Your task to perform on an android device: open app "TextNow: Call + Text Unlimited" (install if not already installed), go to login, and select forgot password Image 0: 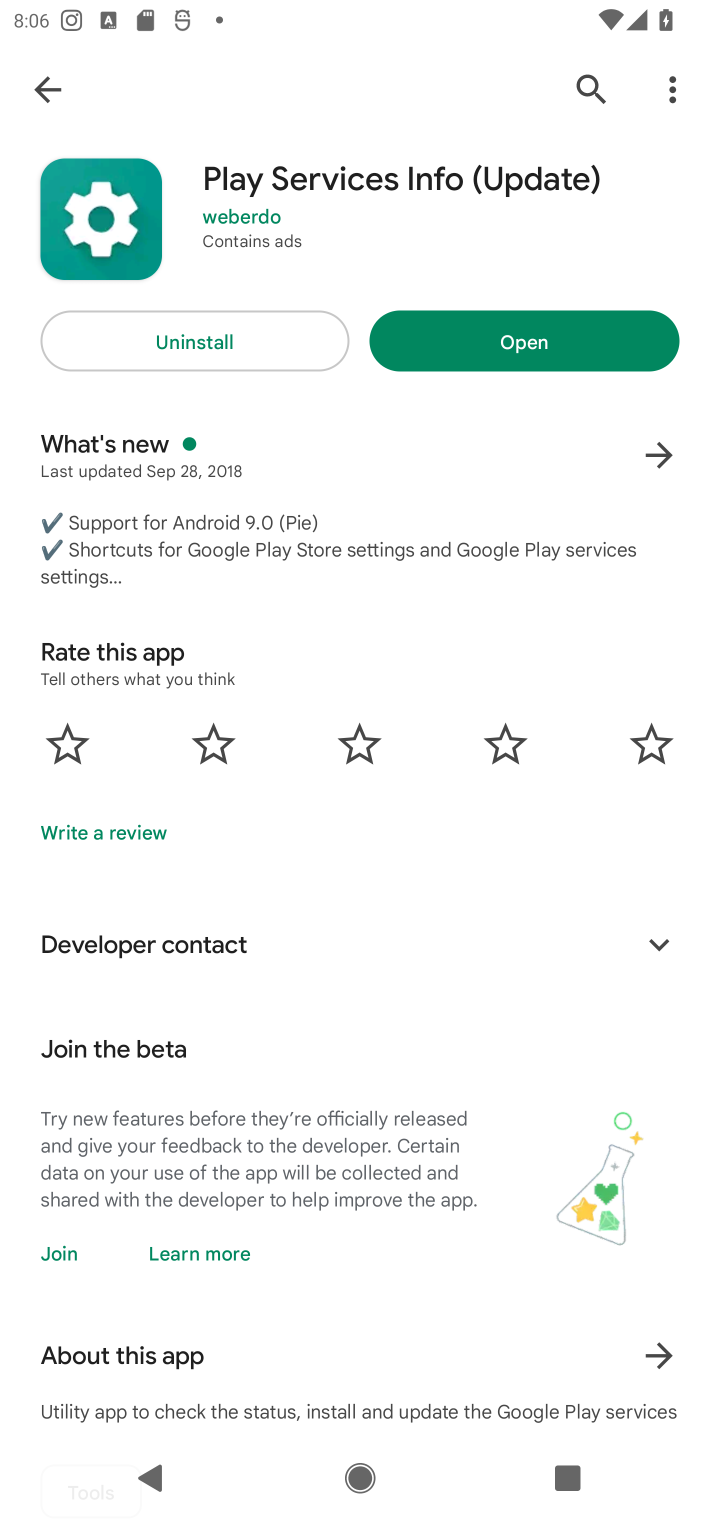
Step 0: click (584, 67)
Your task to perform on an android device: open app "TextNow: Call + Text Unlimited" (install if not already installed), go to login, and select forgot password Image 1: 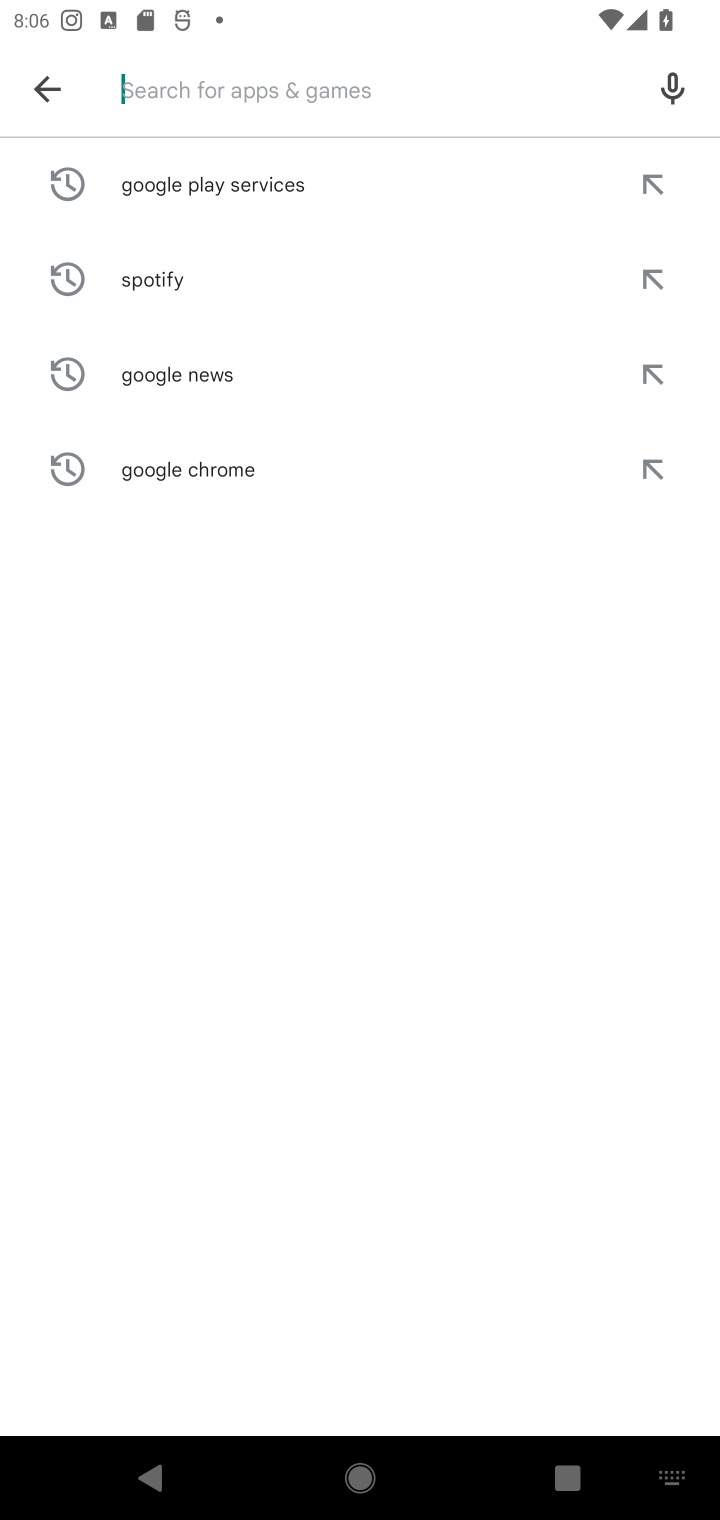
Step 1: type "TextNow: Call + Text Unlimited"
Your task to perform on an android device: open app "TextNow: Call + Text Unlimited" (install if not already installed), go to login, and select forgot password Image 2: 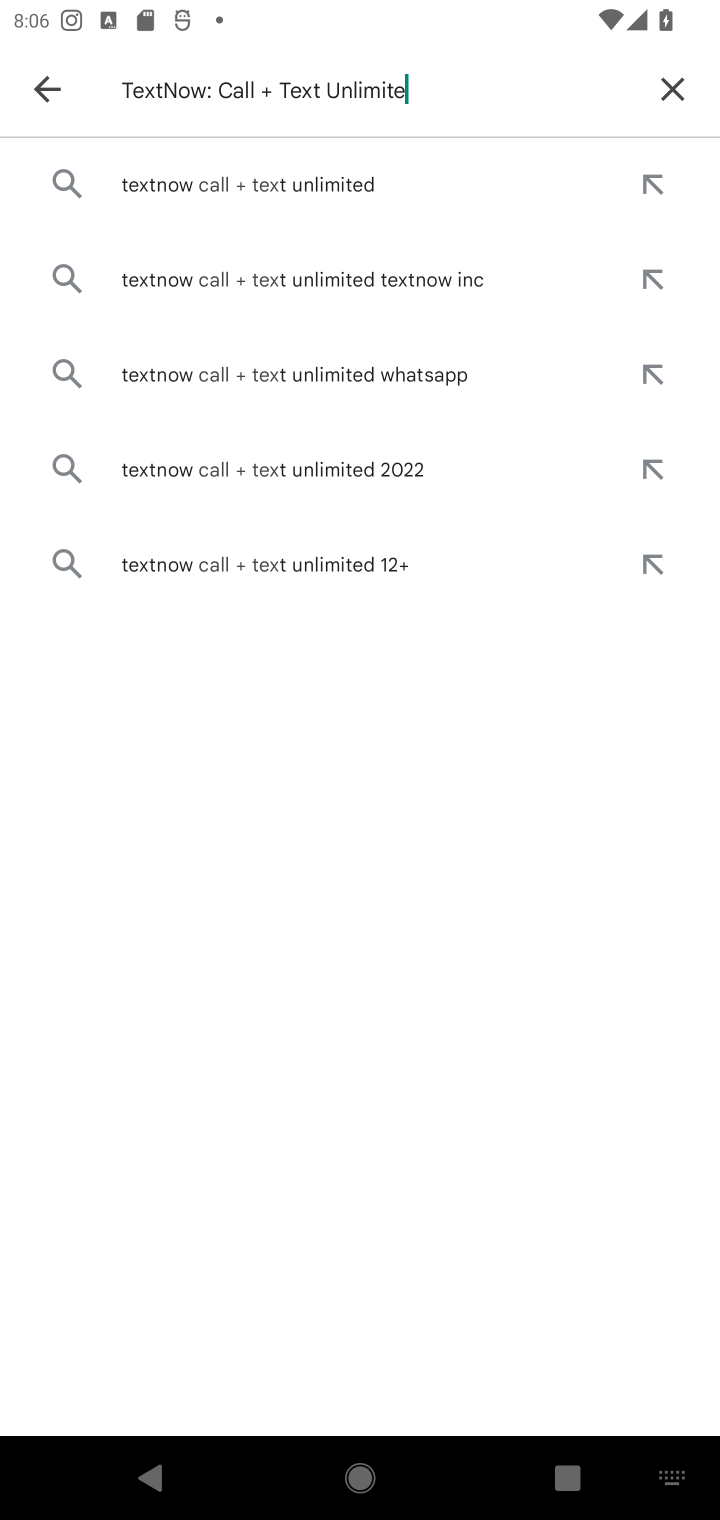
Step 2: type ""
Your task to perform on an android device: open app "TextNow: Call + Text Unlimited" (install if not already installed), go to login, and select forgot password Image 3: 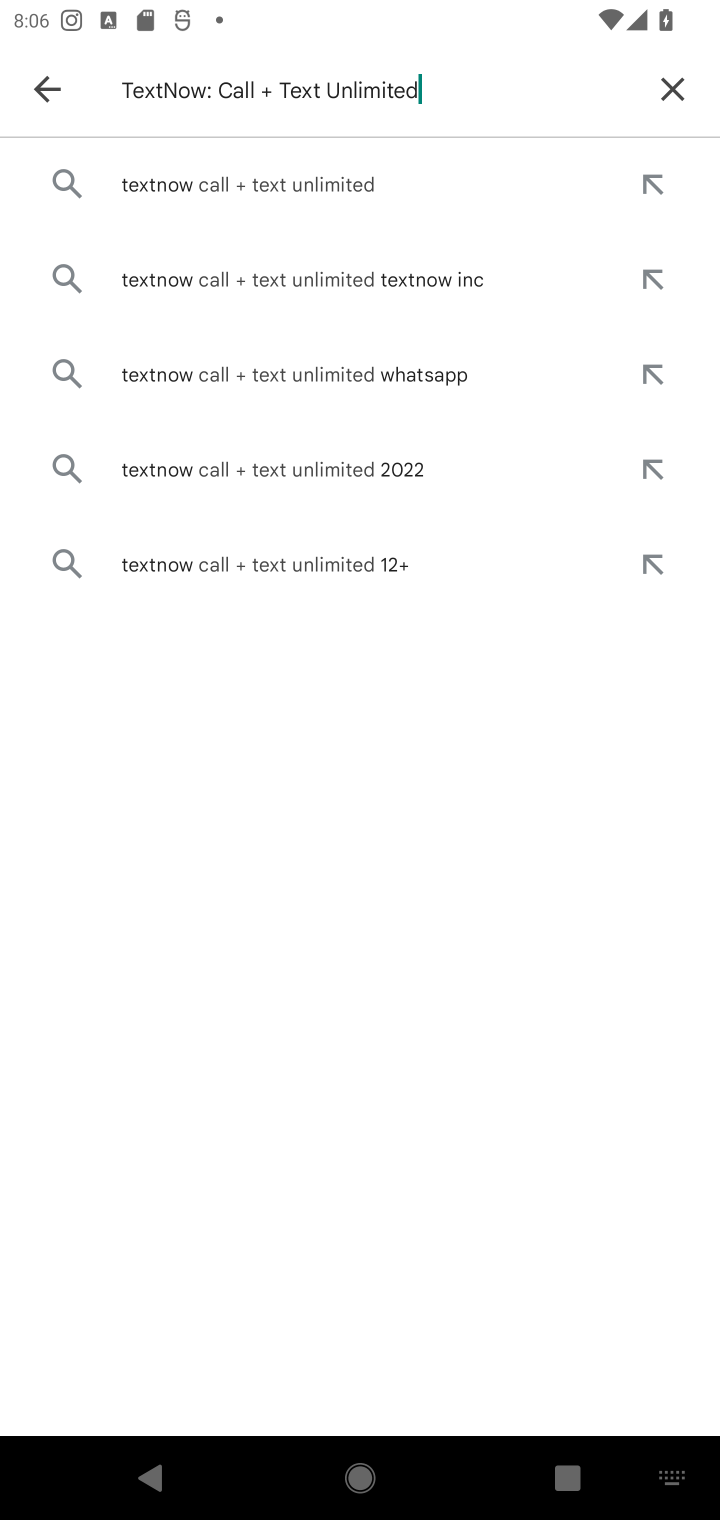
Step 3: click (277, 180)
Your task to perform on an android device: open app "TextNow: Call + Text Unlimited" (install if not already installed), go to login, and select forgot password Image 4: 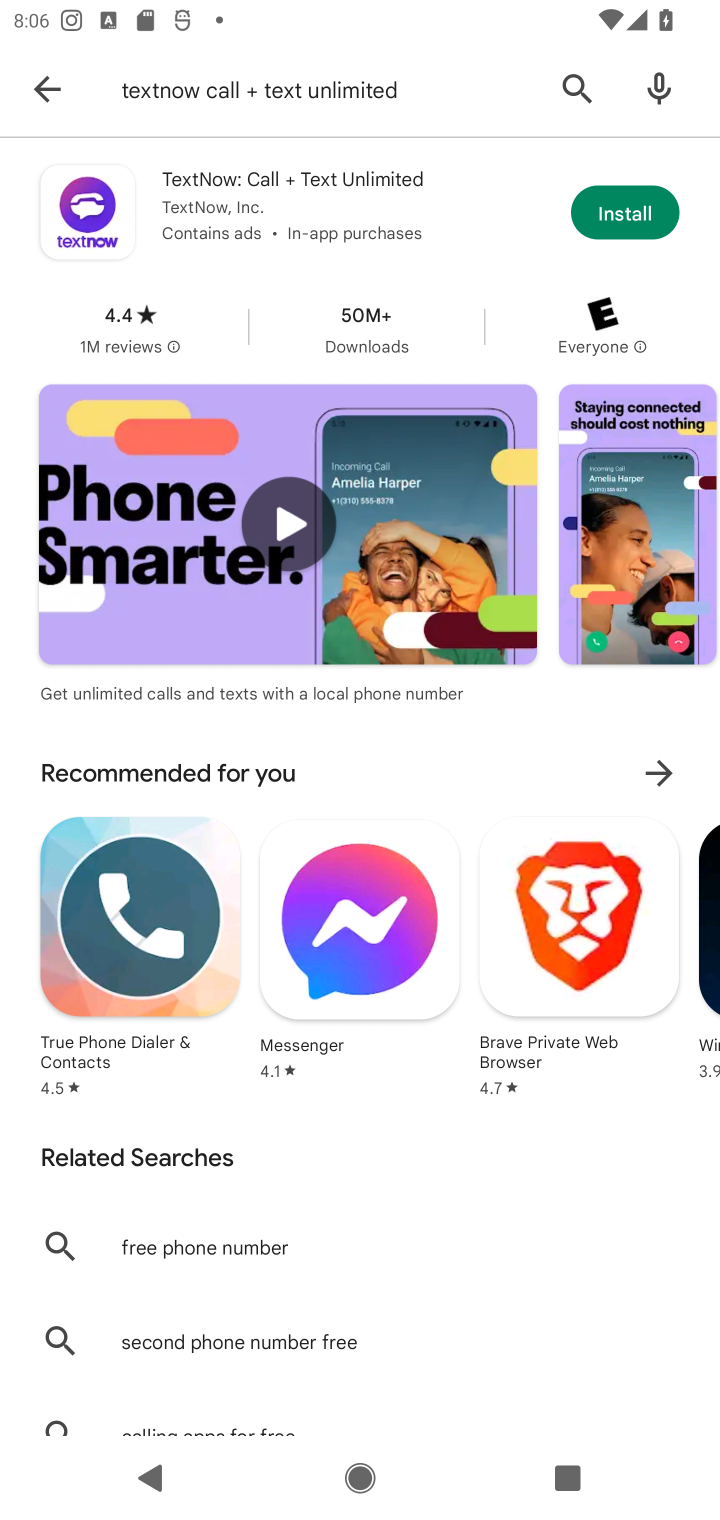
Step 4: click (631, 225)
Your task to perform on an android device: open app "TextNow: Call + Text Unlimited" (install if not already installed), go to login, and select forgot password Image 5: 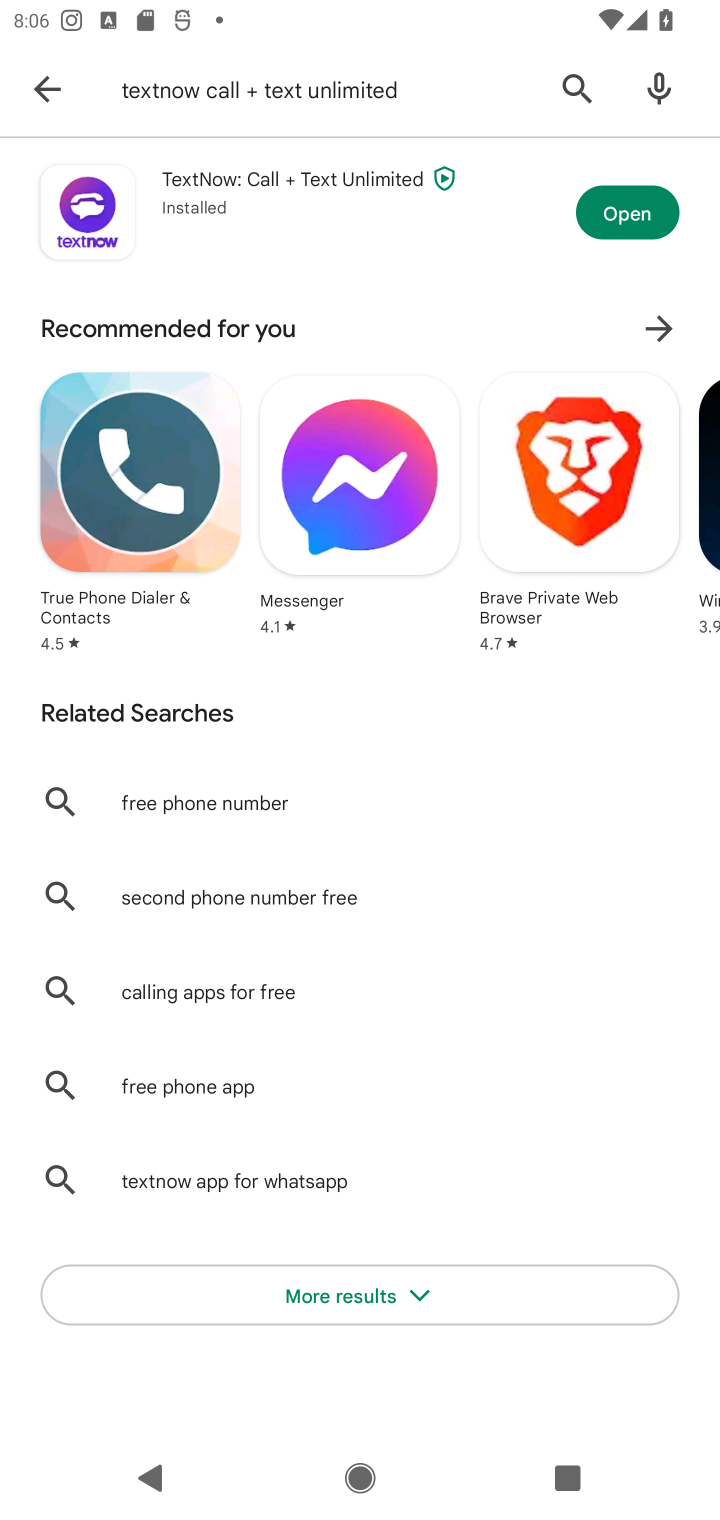
Step 5: click (624, 192)
Your task to perform on an android device: open app "TextNow: Call + Text Unlimited" (install if not already installed), go to login, and select forgot password Image 6: 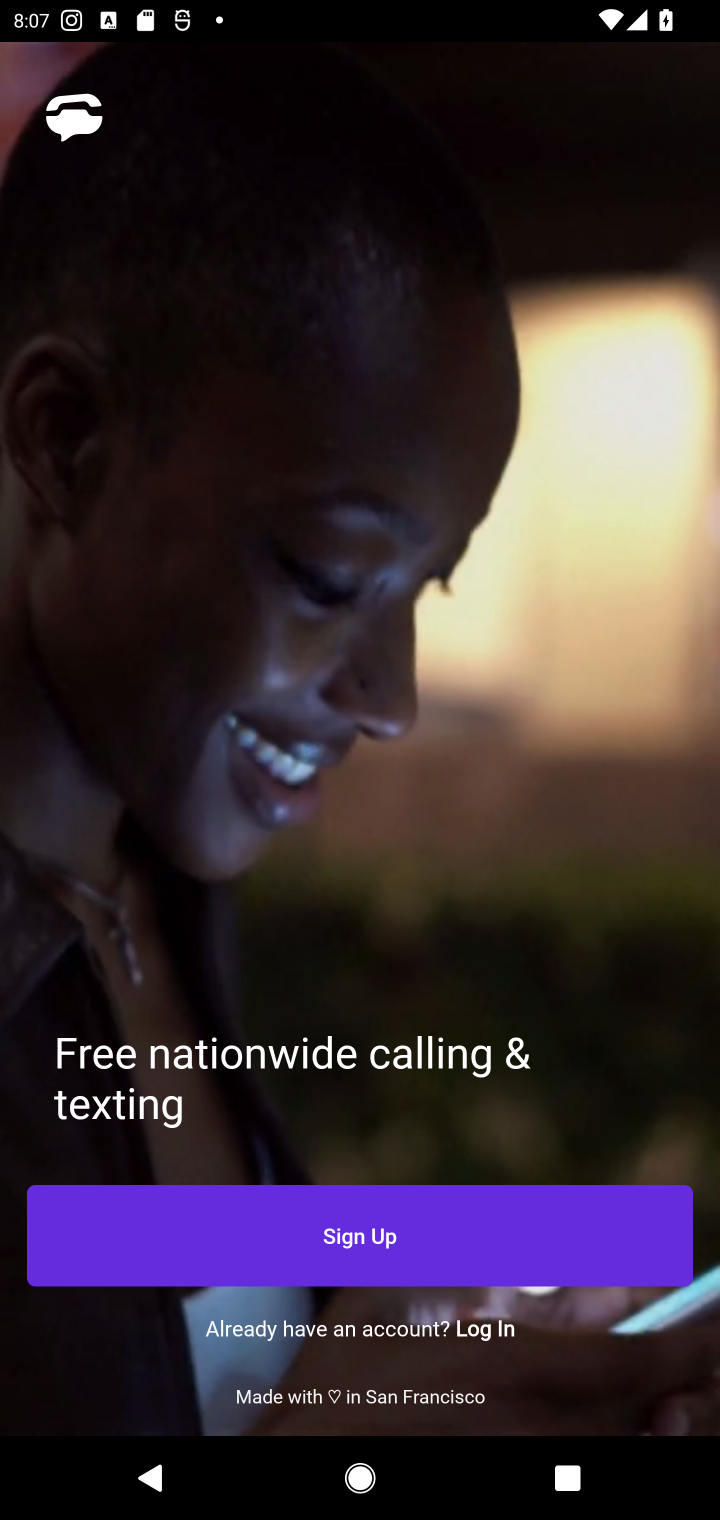
Step 6: task complete